Your task to perform on an android device: turn off location history Image 0: 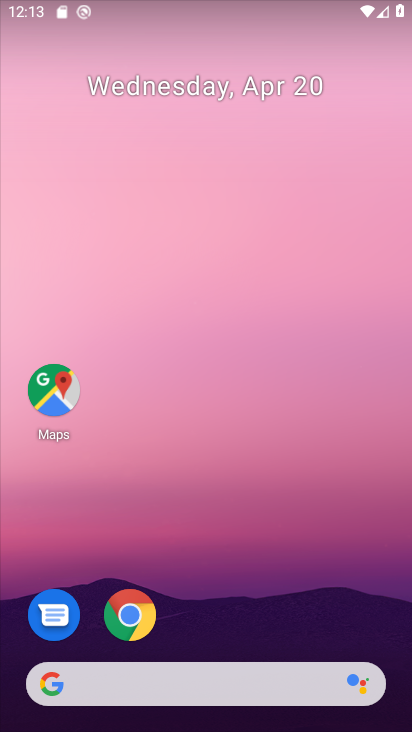
Step 0: drag from (164, 579) to (283, 10)
Your task to perform on an android device: turn off location history Image 1: 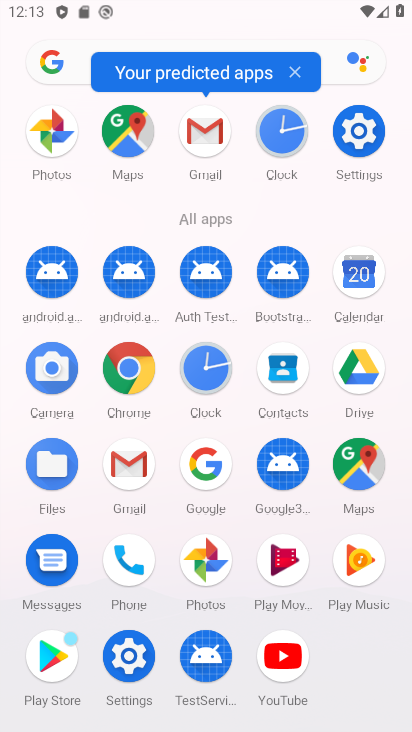
Step 1: click (135, 666)
Your task to perform on an android device: turn off location history Image 2: 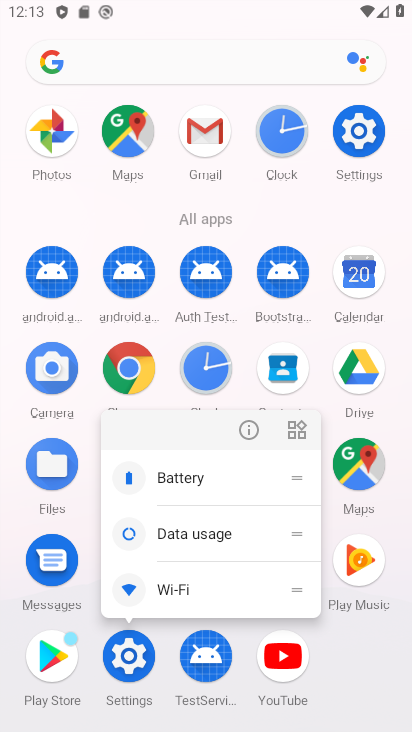
Step 2: click (135, 667)
Your task to perform on an android device: turn off location history Image 3: 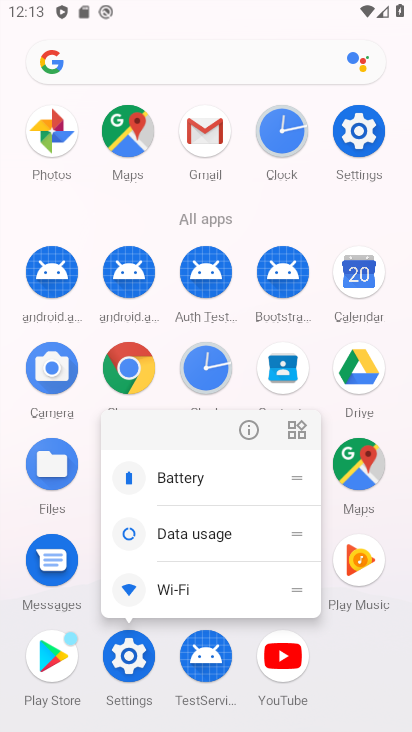
Step 3: click (127, 658)
Your task to perform on an android device: turn off location history Image 4: 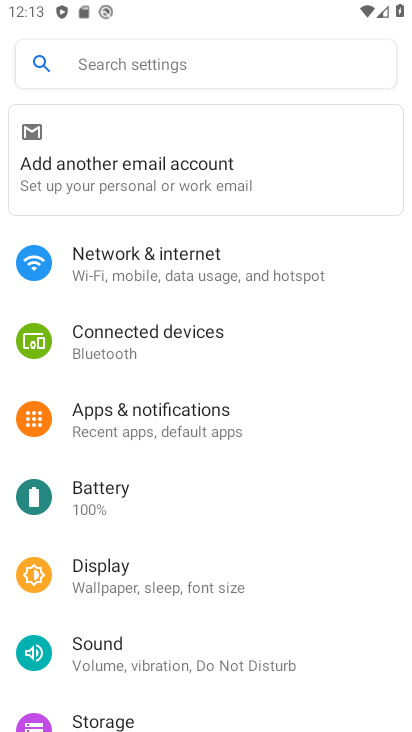
Step 4: drag from (199, 625) to (306, 234)
Your task to perform on an android device: turn off location history Image 5: 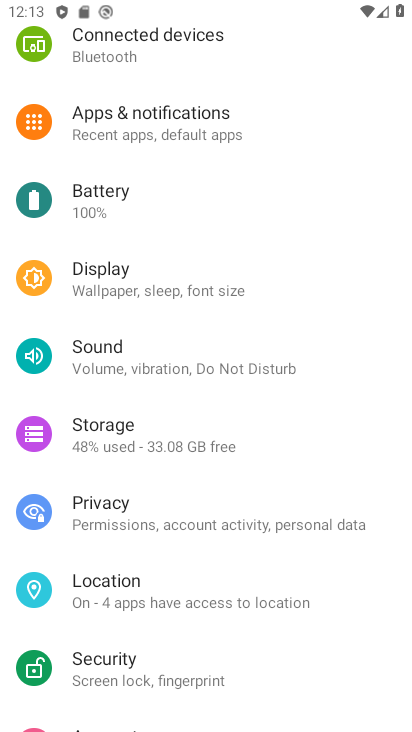
Step 5: click (131, 587)
Your task to perform on an android device: turn off location history Image 6: 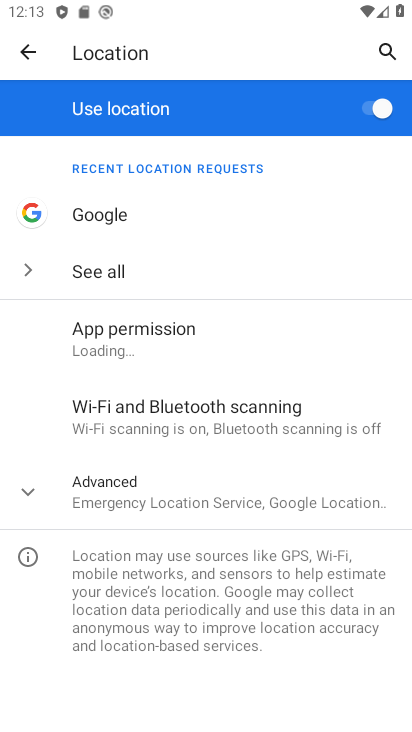
Step 6: click (261, 500)
Your task to perform on an android device: turn off location history Image 7: 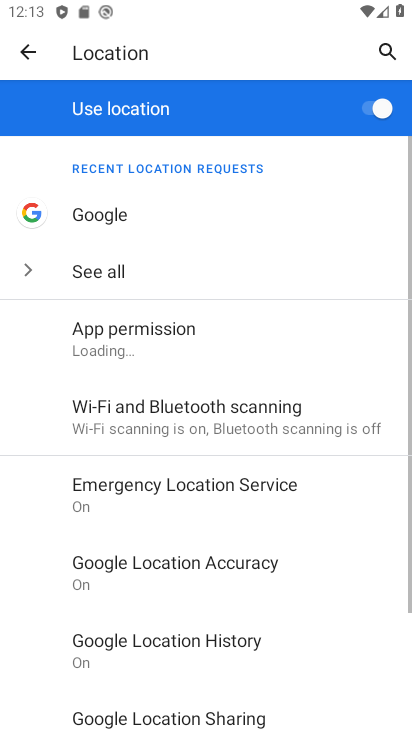
Step 7: drag from (195, 651) to (251, 450)
Your task to perform on an android device: turn off location history Image 8: 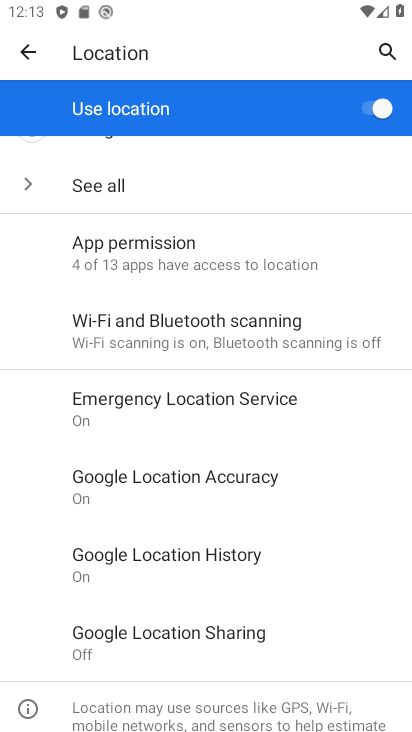
Step 8: click (252, 572)
Your task to perform on an android device: turn off location history Image 9: 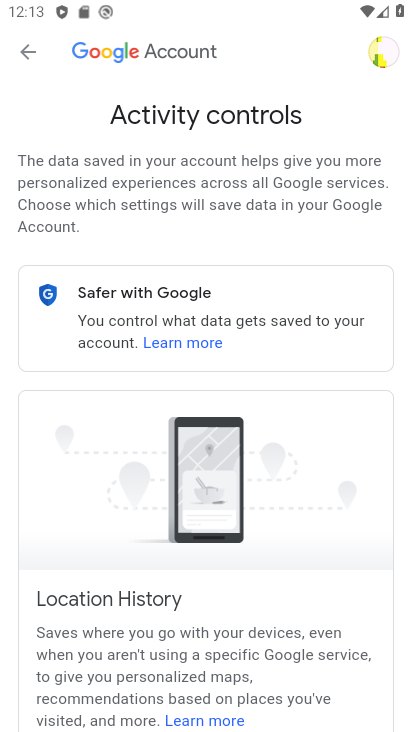
Step 9: task complete